Your task to perform on an android device: check google app version Image 0: 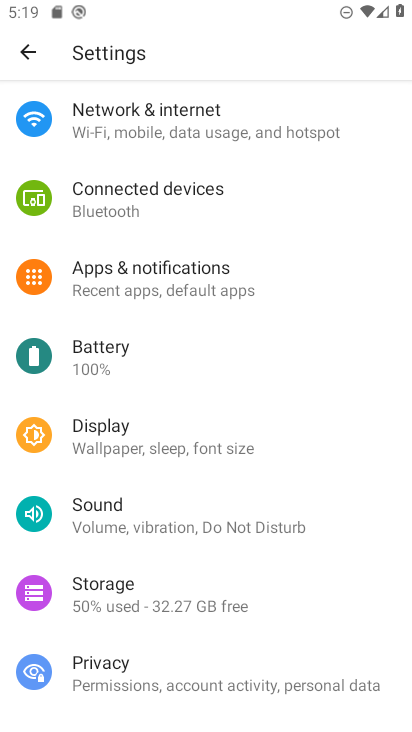
Step 0: press home button
Your task to perform on an android device: check google app version Image 1: 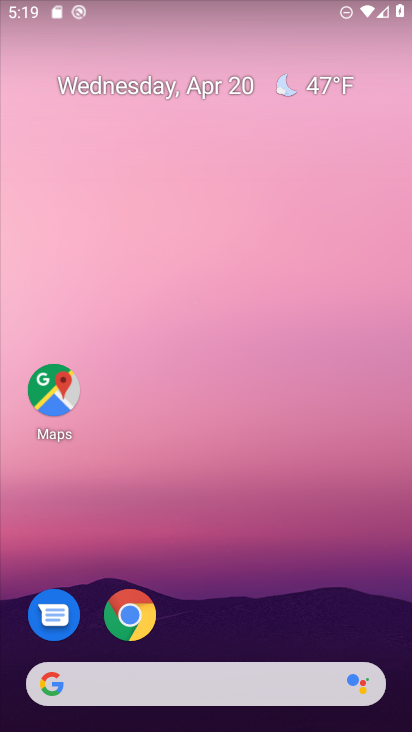
Step 1: drag from (229, 634) to (245, 90)
Your task to perform on an android device: check google app version Image 2: 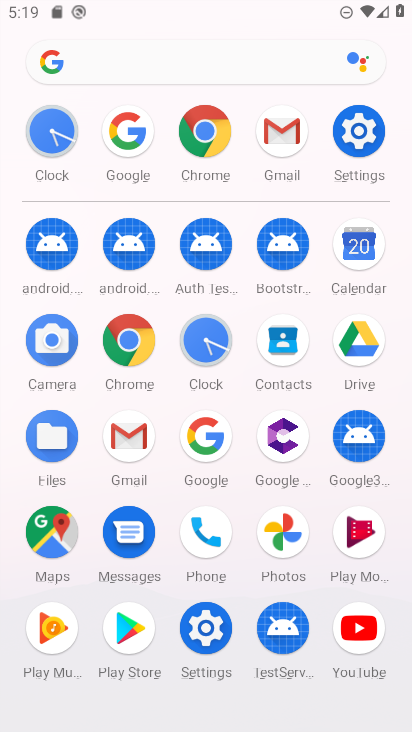
Step 2: click (128, 127)
Your task to perform on an android device: check google app version Image 3: 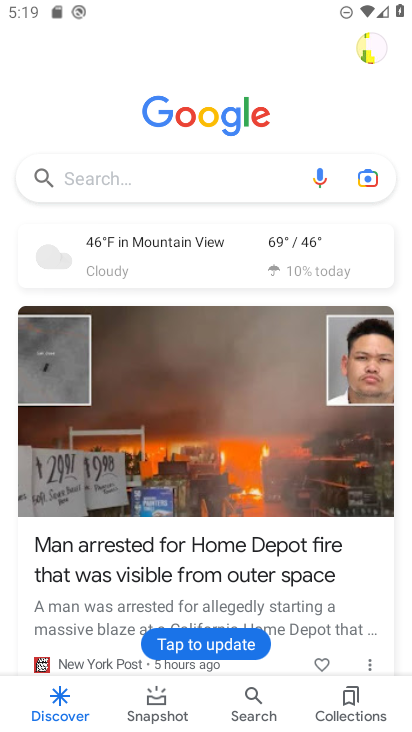
Step 3: click (370, 55)
Your task to perform on an android device: check google app version Image 4: 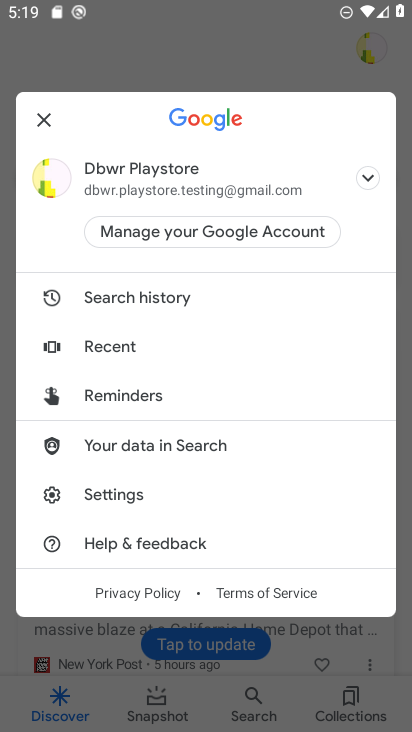
Step 4: click (145, 494)
Your task to perform on an android device: check google app version Image 5: 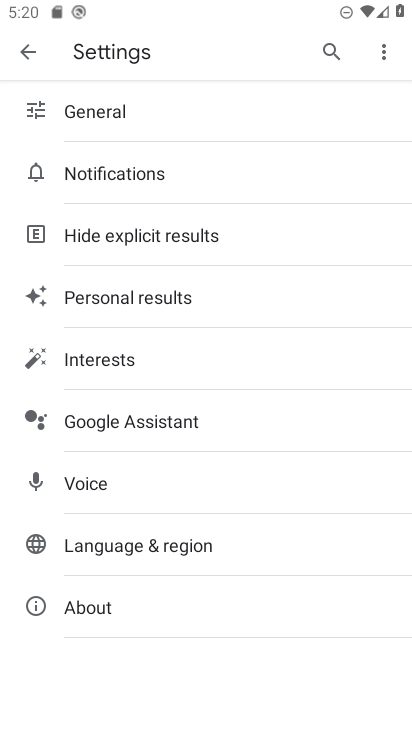
Step 5: click (131, 612)
Your task to perform on an android device: check google app version Image 6: 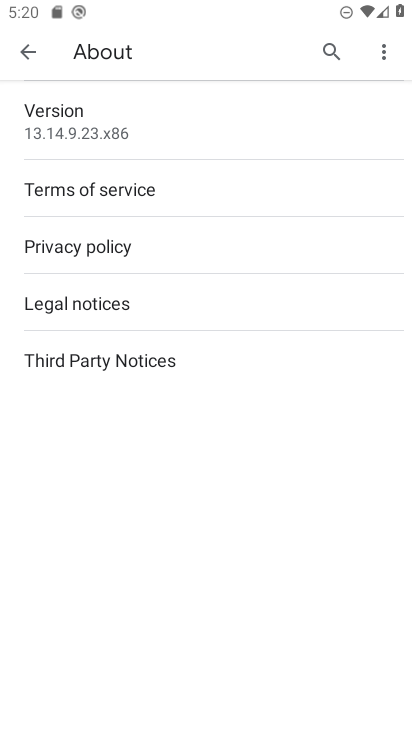
Step 6: click (119, 127)
Your task to perform on an android device: check google app version Image 7: 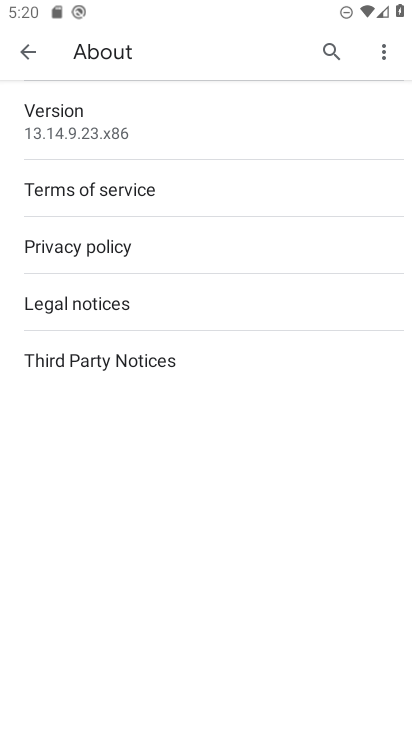
Step 7: task complete